Your task to perform on an android device: Open internet settings Image 0: 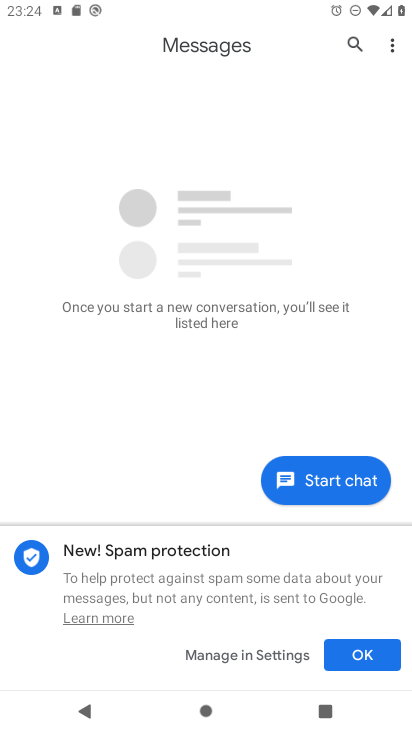
Step 0: press home button
Your task to perform on an android device: Open internet settings Image 1: 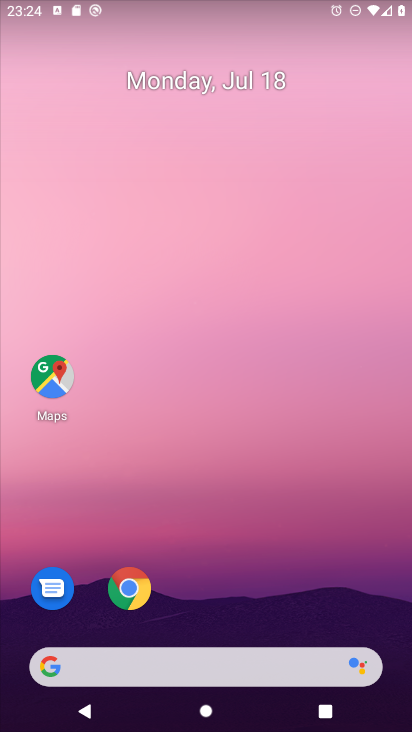
Step 1: drag from (343, 609) to (273, 130)
Your task to perform on an android device: Open internet settings Image 2: 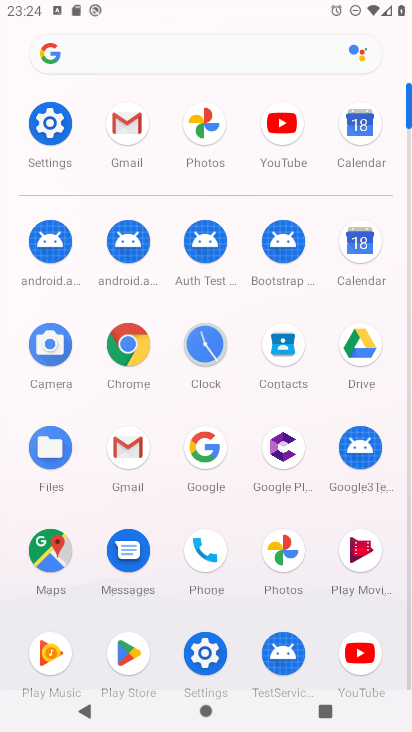
Step 2: click (205, 654)
Your task to perform on an android device: Open internet settings Image 3: 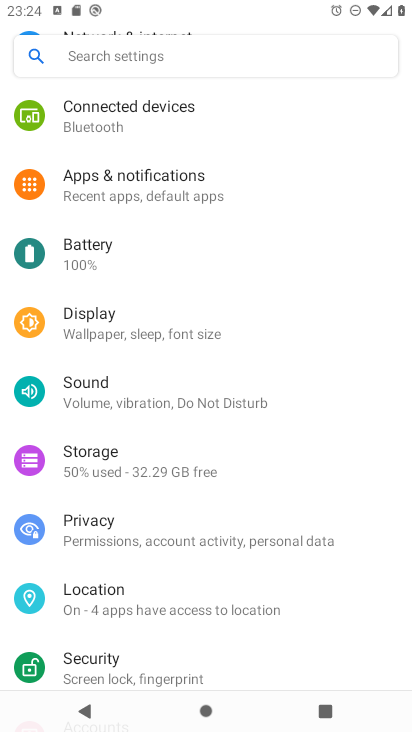
Step 3: drag from (254, 116) to (258, 336)
Your task to perform on an android device: Open internet settings Image 4: 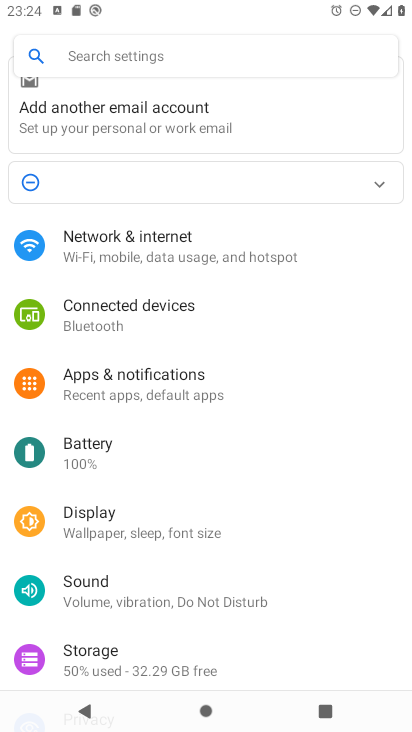
Step 4: click (116, 242)
Your task to perform on an android device: Open internet settings Image 5: 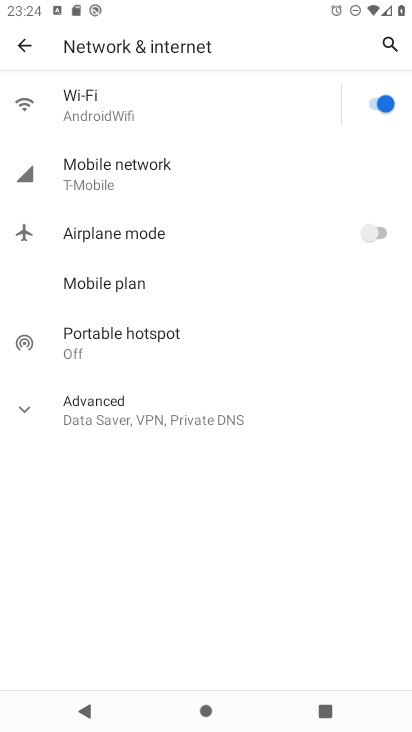
Step 5: click (67, 95)
Your task to perform on an android device: Open internet settings Image 6: 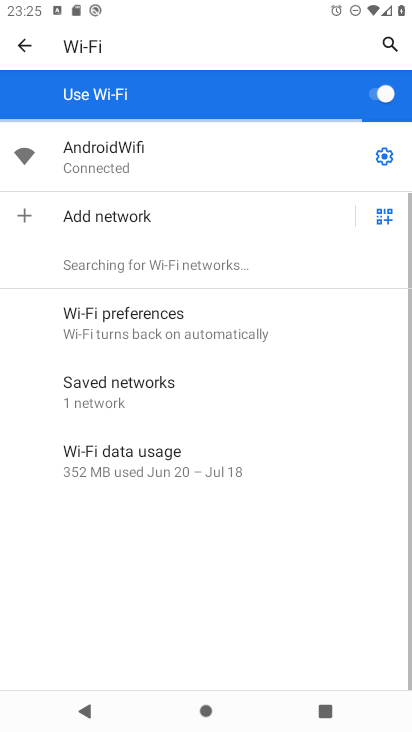
Step 6: task complete